Your task to perform on an android device: Search for Italian restaurants on Maps Image 0: 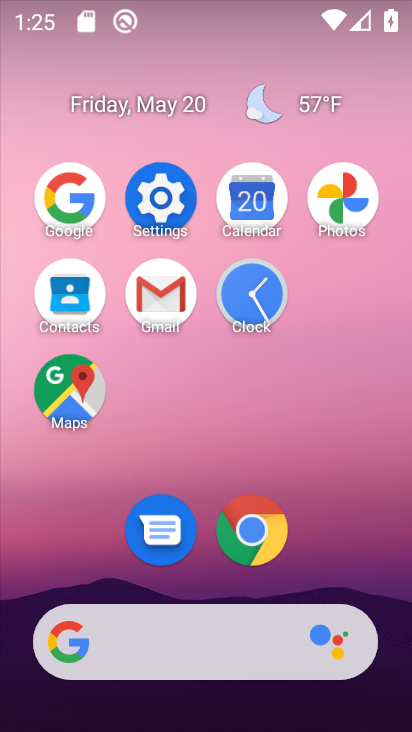
Step 0: click (75, 382)
Your task to perform on an android device: Search for Italian restaurants on Maps Image 1: 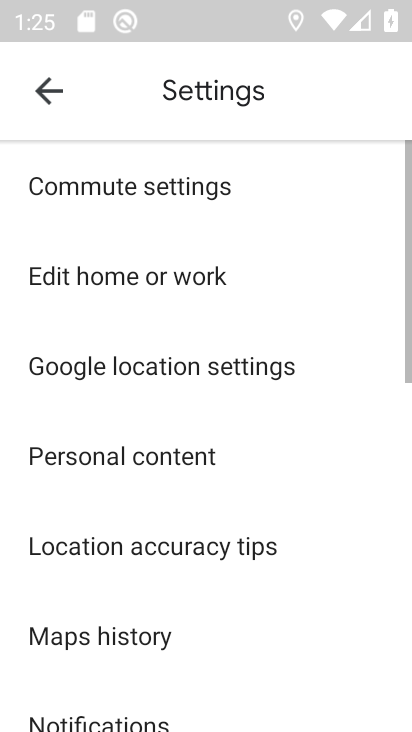
Step 1: click (55, 111)
Your task to perform on an android device: Search for Italian restaurants on Maps Image 2: 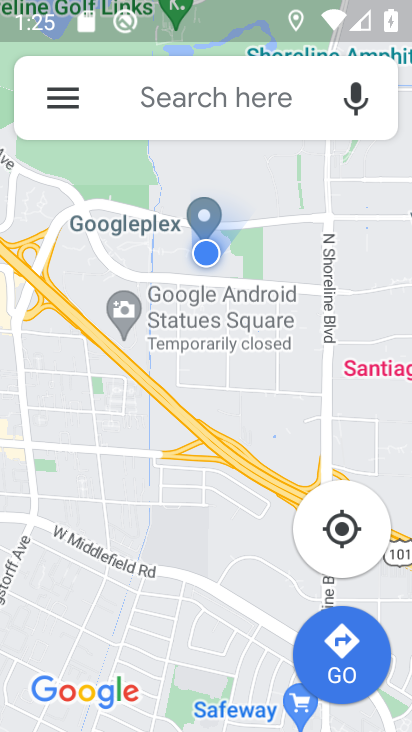
Step 2: click (173, 111)
Your task to perform on an android device: Search for Italian restaurants on Maps Image 3: 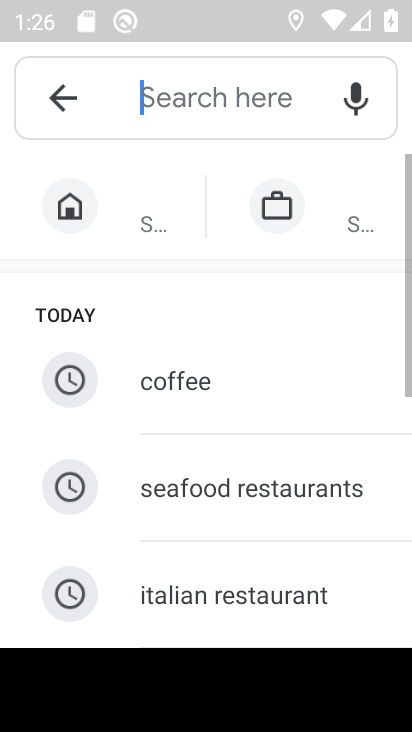
Step 3: drag from (260, 537) to (250, 219)
Your task to perform on an android device: Search for Italian restaurants on Maps Image 4: 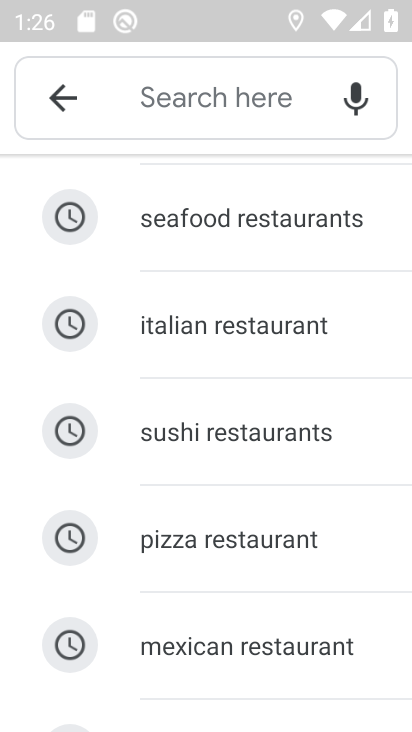
Step 4: click (256, 310)
Your task to perform on an android device: Search for Italian restaurants on Maps Image 5: 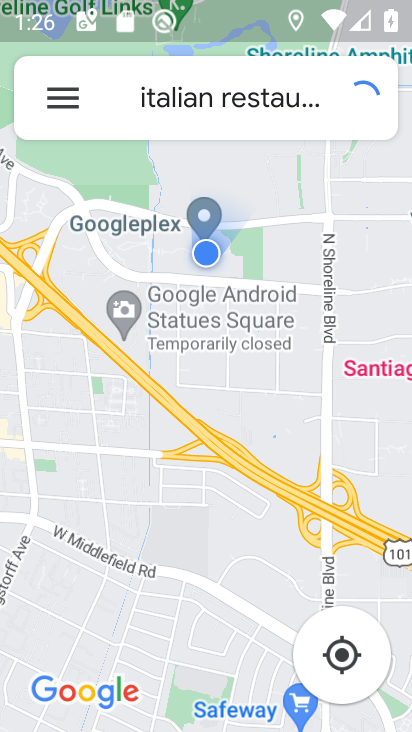
Step 5: task complete